Your task to perform on an android device: toggle show notifications on the lock screen Image 0: 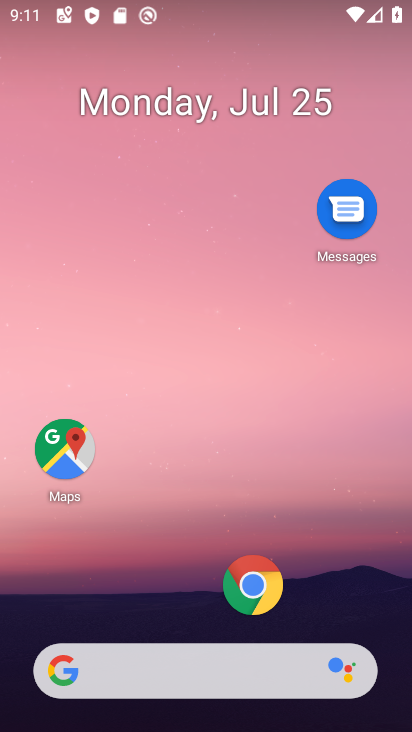
Step 0: press home button
Your task to perform on an android device: toggle show notifications on the lock screen Image 1: 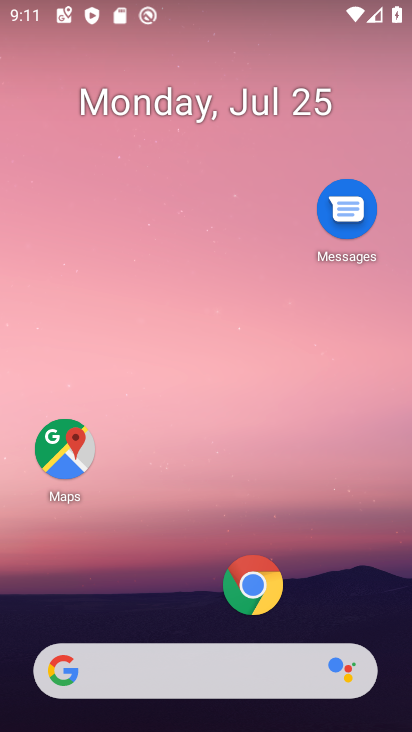
Step 1: drag from (197, 666) to (320, 84)
Your task to perform on an android device: toggle show notifications on the lock screen Image 2: 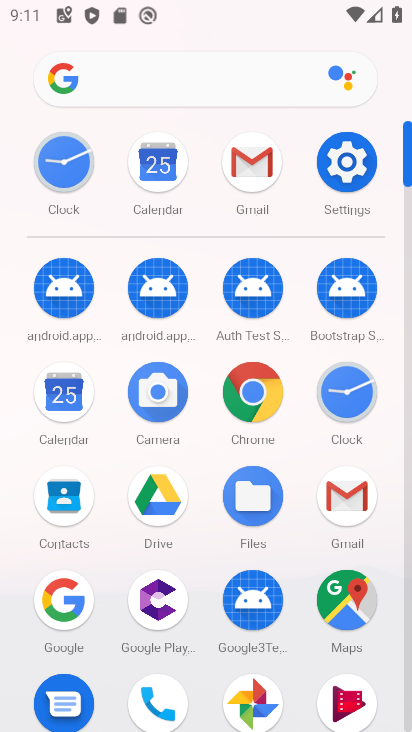
Step 2: click (347, 158)
Your task to perform on an android device: toggle show notifications on the lock screen Image 3: 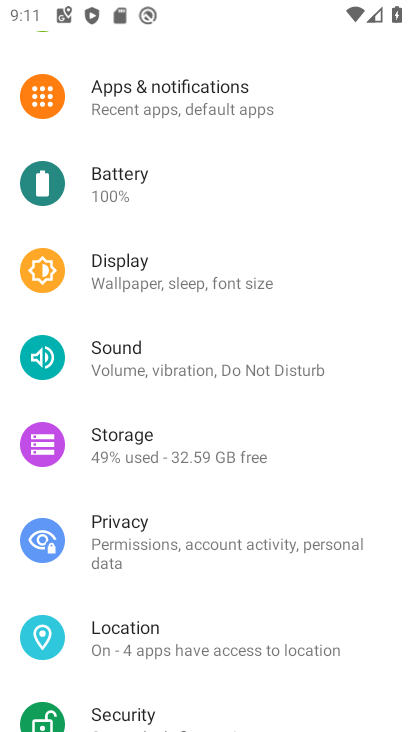
Step 3: click (180, 87)
Your task to perform on an android device: toggle show notifications on the lock screen Image 4: 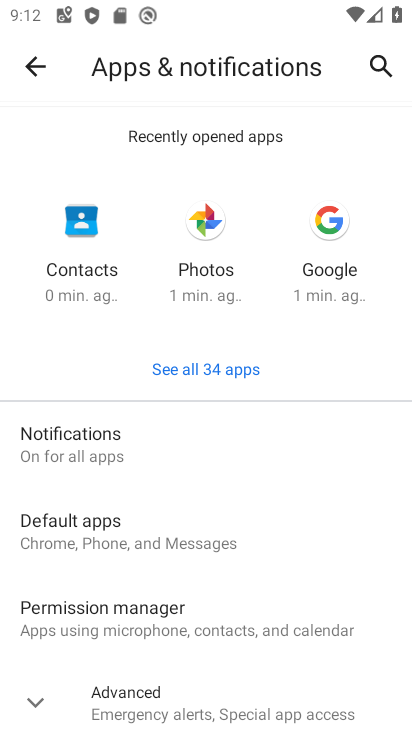
Step 4: click (114, 447)
Your task to perform on an android device: toggle show notifications on the lock screen Image 5: 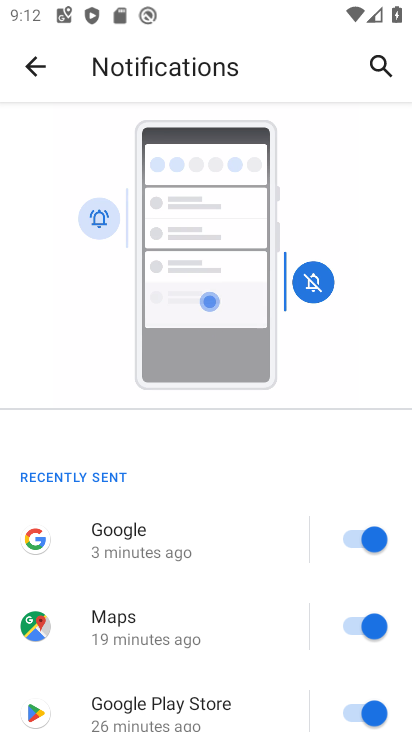
Step 5: drag from (249, 679) to (336, 124)
Your task to perform on an android device: toggle show notifications on the lock screen Image 6: 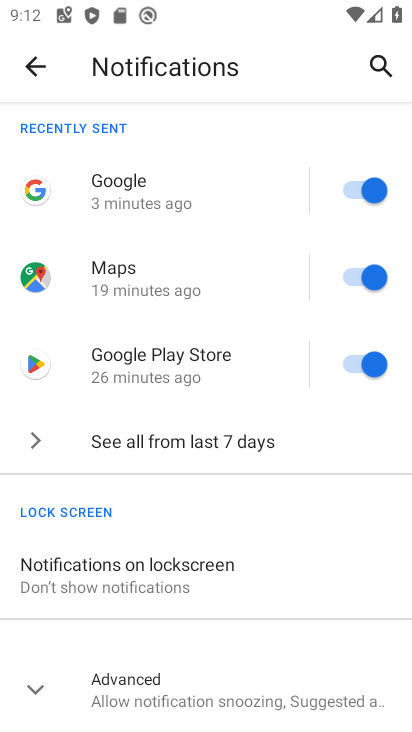
Step 6: click (156, 563)
Your task to perform on an android device: toggle show notifications on the lock screen Image 7: 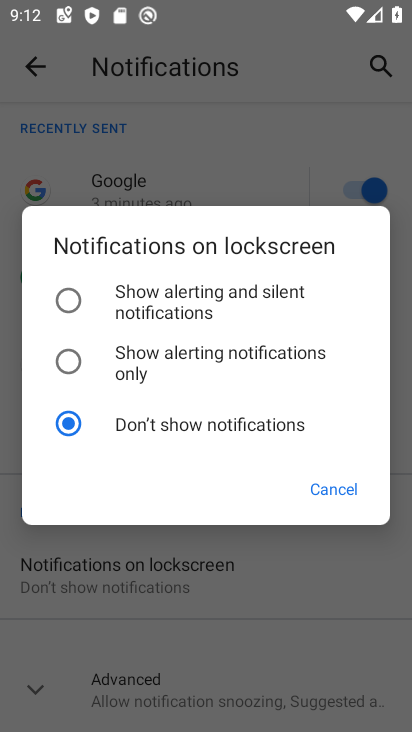
Step 7: click (68, 302)
Your task to perform on an android device: toggle show notifications on the lock screen Image 8: 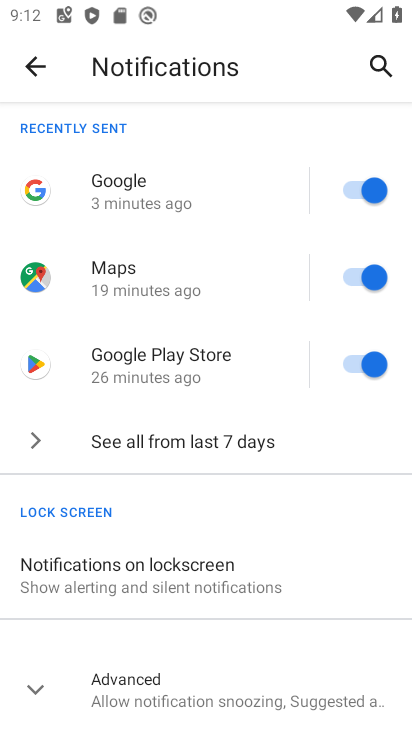
Step 8: task complete